Your task to perform on an android device: turn on the 12-hour format for clock Image 0: 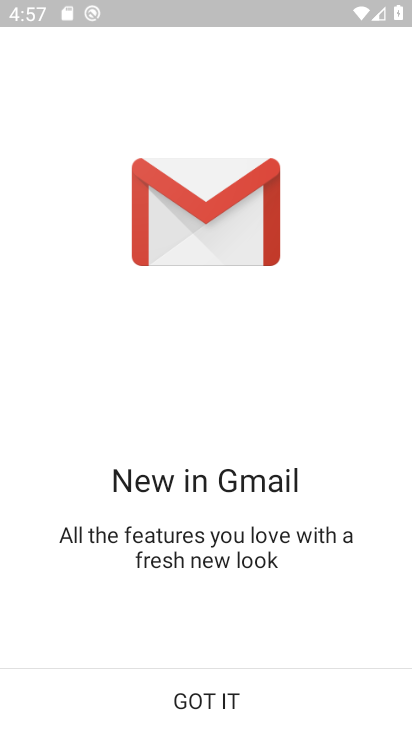
Step 0: press home button
Your task to perform on an android device: turn on the 12-hour format for clock Image 1: 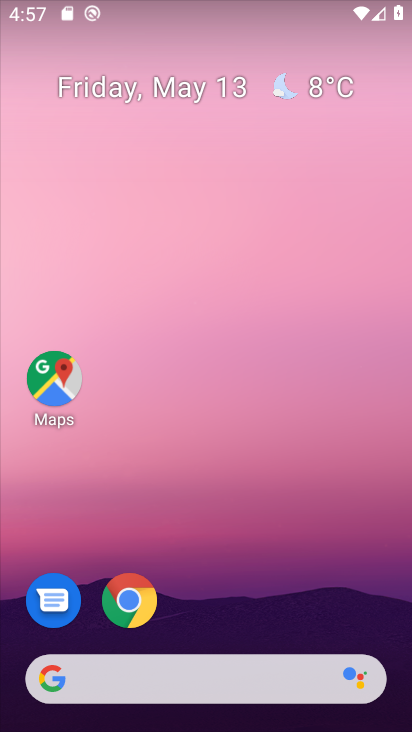
Step 1: drag from (333, 637) to (346, 150)
Your task to perform on an android device: turn on the 12-hour format for clock Image 2: 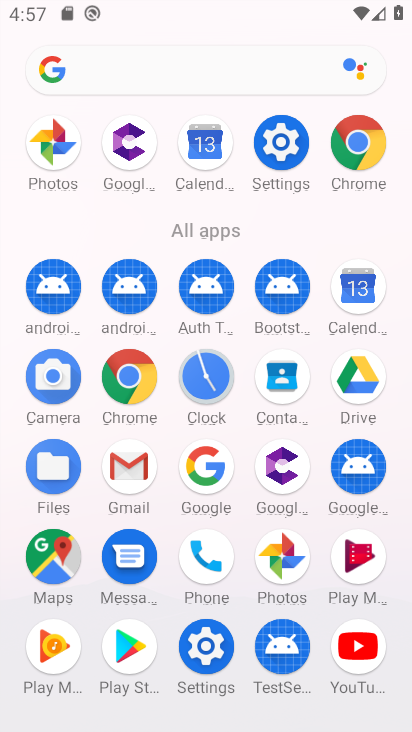
Step 2: click (217, 378)
Your task to perform on an android device: turn on the 12-hour format for clock Image 3: 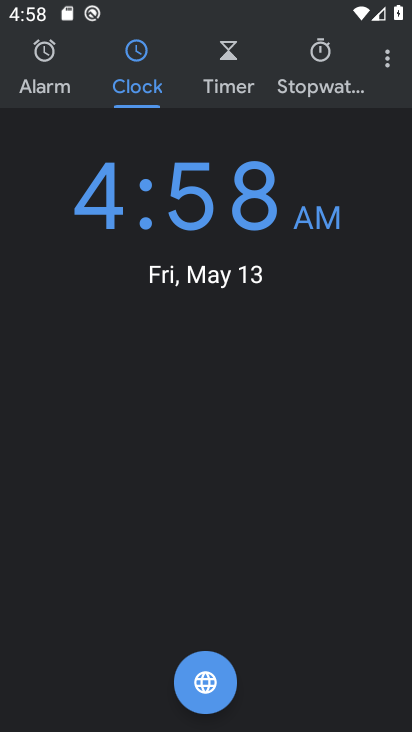
Step 3: click (395, 77)
Your task to perform on an android device: turn on the 12-hour format for clock Image 4: 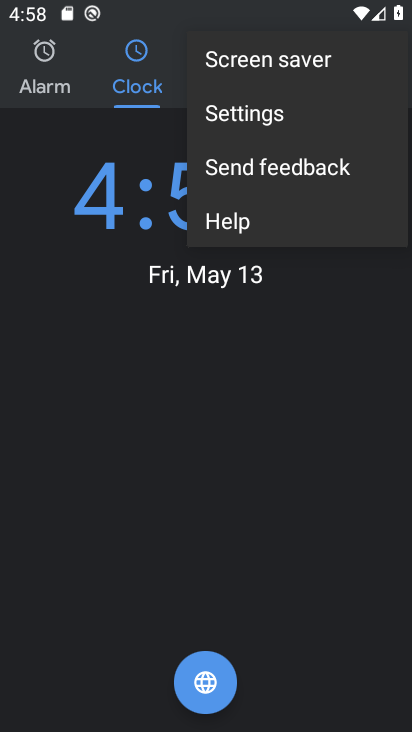
Step 4: click (298, 130)
Your task to perform on an android device: turn on the 12-hour format for clock Image 5: 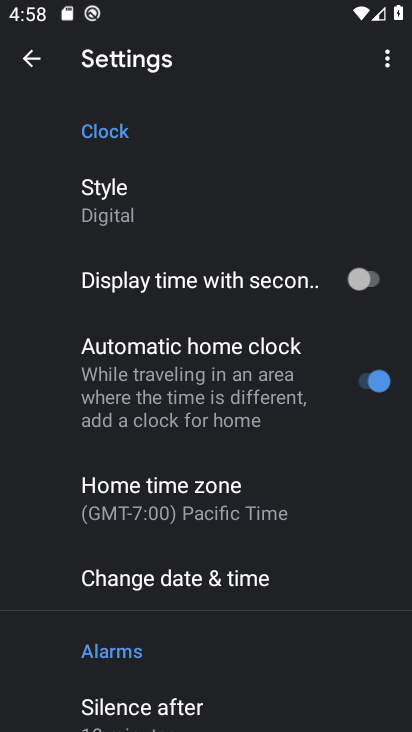
Step 5: click (195, 595)
Your task to perform on an android device: turn on the 12-hour format for clock Image 6: 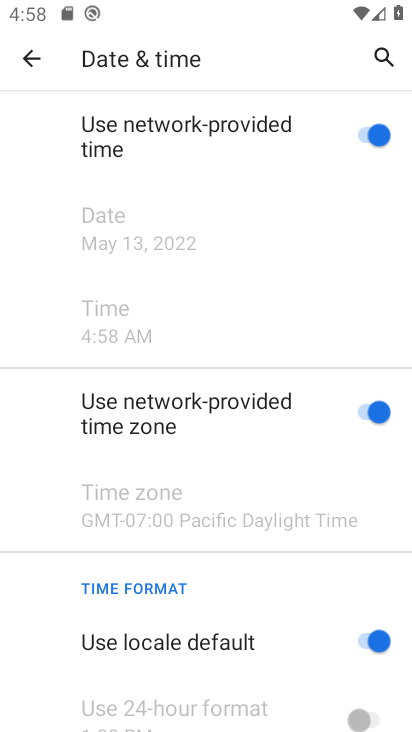
Step 6: drag from (198, 674) to (236, 388)
Your task to perform on an android device: turn on the 12-hour format for clock Image 7: 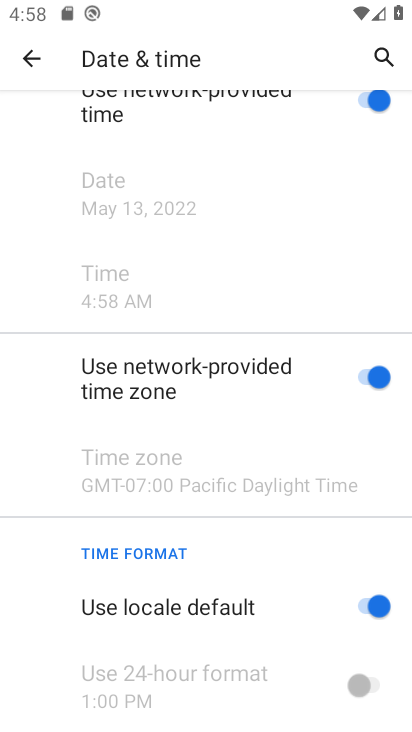
Step 7: click (323, 597)
Your task to perform on an android device: turn on the 12-hour format for clock Image 8: 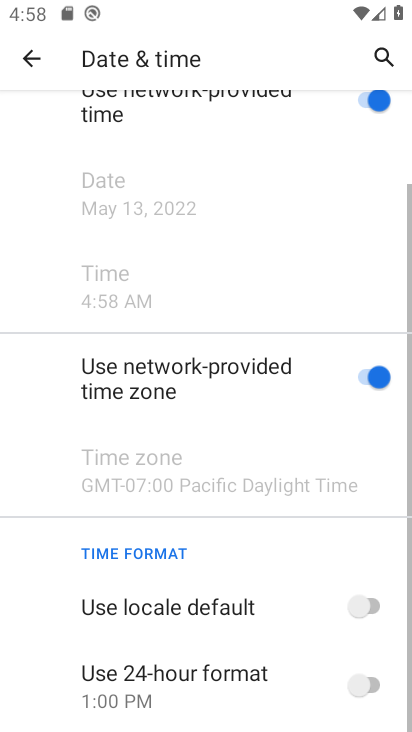
Step 8: click (336, 666)
Your task to perform on an android device: turn on the 12-hour format for clock Image 9: 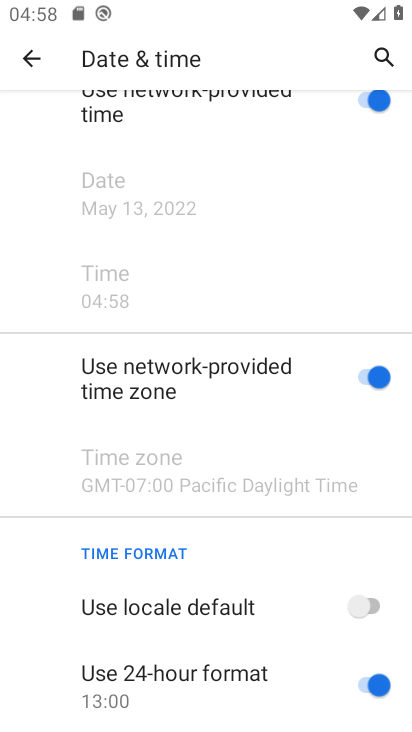
Step 9: click (344, 678)
Your task to perform on an android device: turn on the 12-hour format for clock Image 10: 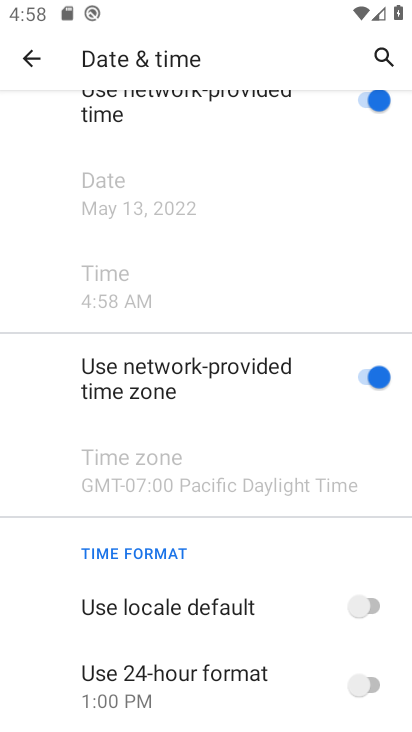
Step 10: task complete